Your task to perform on an android device: What's on my calendar today? Image 0: 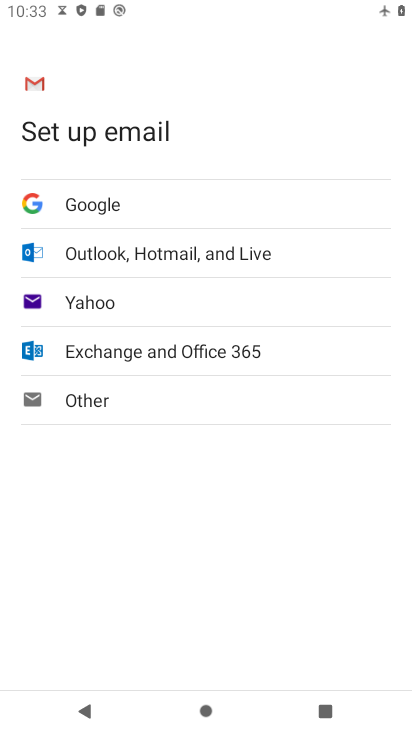
Step 0: press back button
Your task to perform on an android device: What's on my calendar today? Image 1: 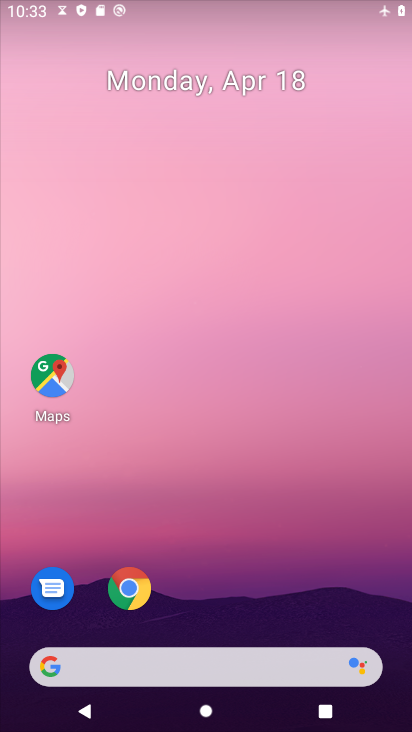
Step 1: drag from (391, 517) to (106, 43)
Your task to perform on an android device: What's on my calendar today? Image 2: 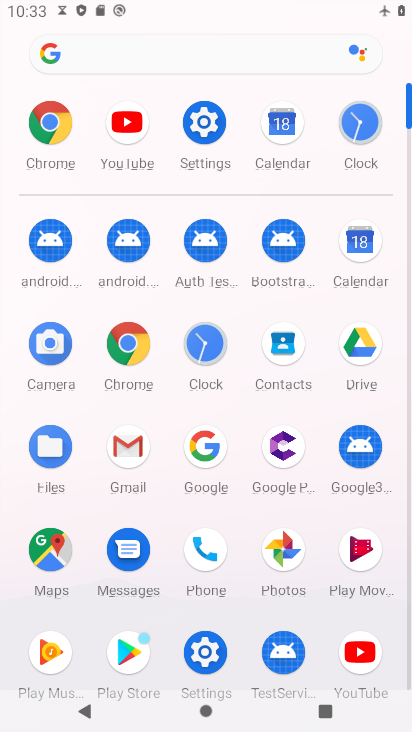
Step 2: click (352, 235)
Your task to perform on an android device: What's on my calendar today? Image 3: 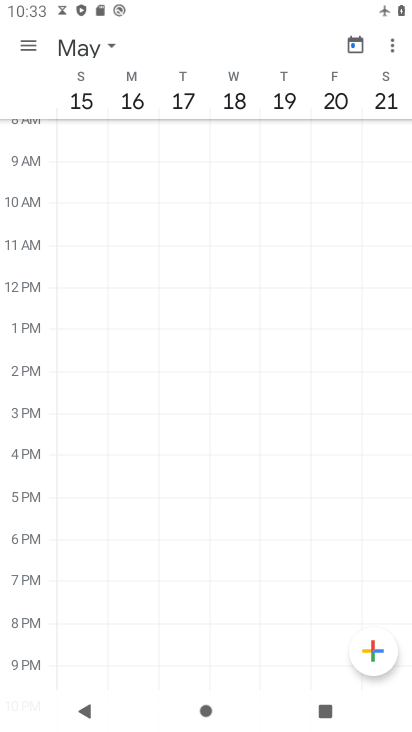
Step 3: click (36, 47)
Your task to perform on an android device: What's on my calendar today? Image 4: 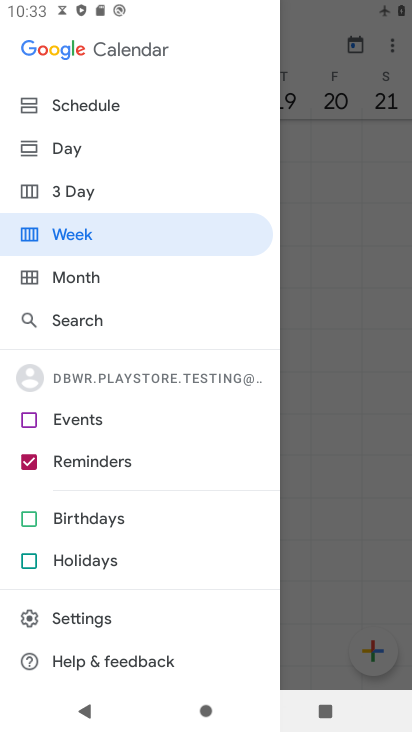
Step 4: click (104, 141)
Your task to perform on an android device: What's on my calendar today? Image 5: 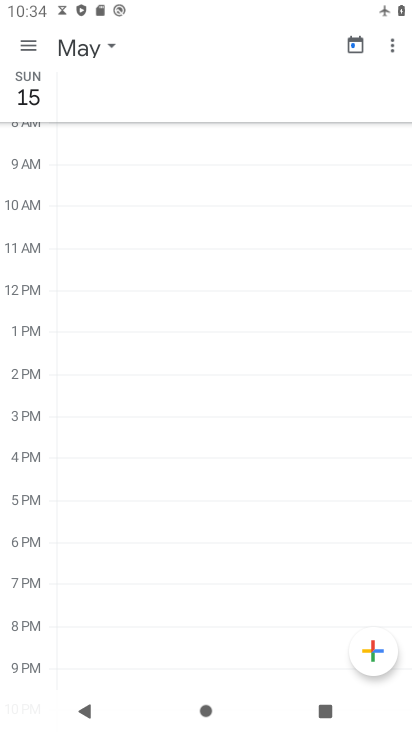
Step 5: click (21, 41)
Your task to perform on an android device: What's on my calendar today? Image 6: 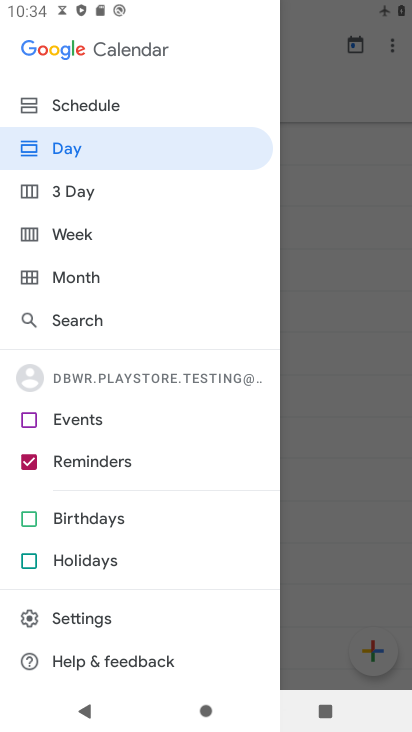
Step 6: click (108, 146)
Your task to perform on an android device: What's on my calendar today? Image 7: 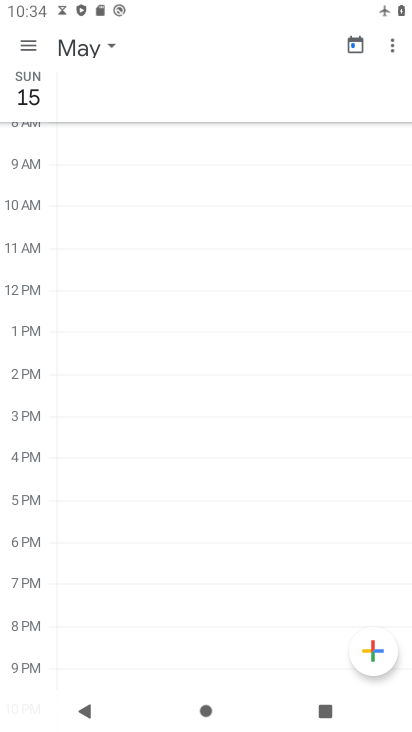
Step 7: click (342, 48)
Your task to perform on an android device: What's on my calendar today? Image 8: 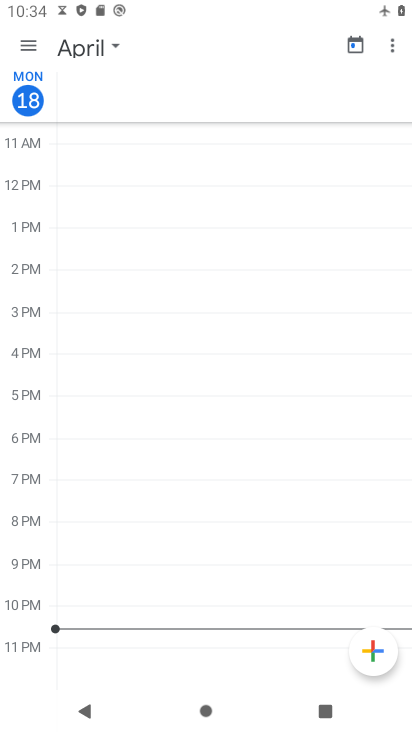
Step 8: task complete